Your task to perform on an android device: turn on sleep mode Image 0: 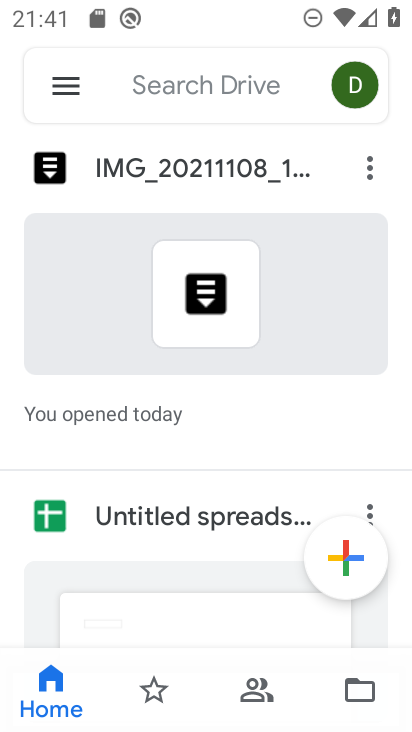
Step 0: press home button
Your task to perform on an android device: turn on sleep mode Image 1: 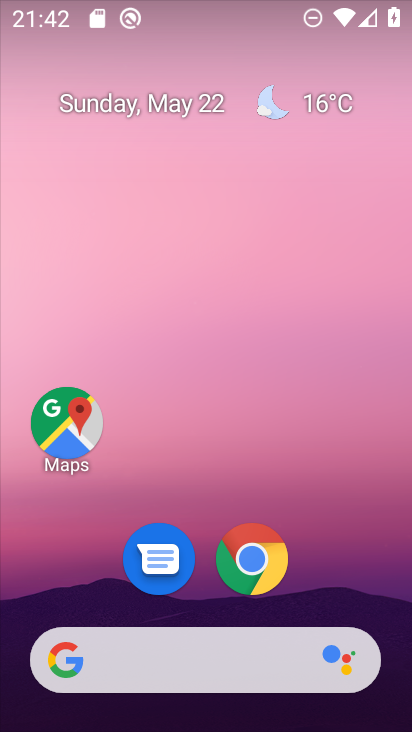
Step 1: drag from (307, 664) to (238, 216)
Your task to perform on an android device: turn on sleep mode Image 2: 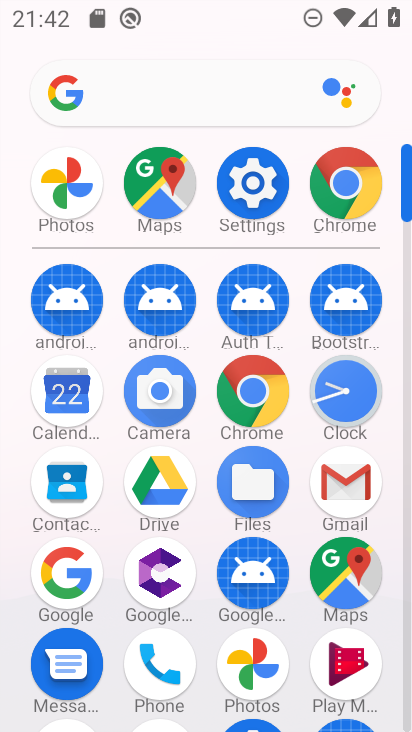
Step 2: click (261, 210)
Your task to perform on an android device: turn on sleep mode Image 3: 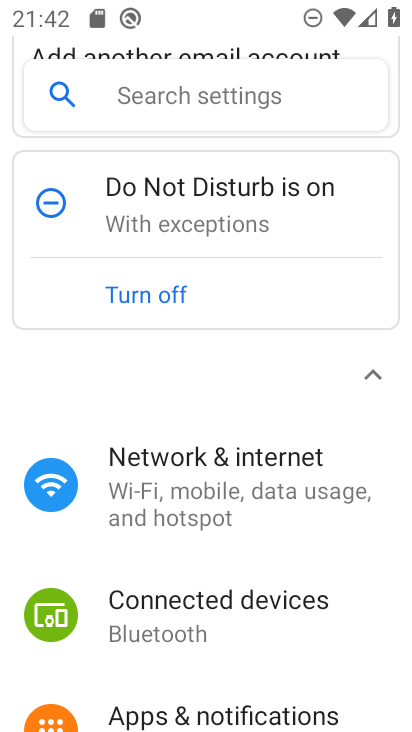
Step 3: click (173, 113)
Your task to perform on an android device: turn on sleep mode Image 4: 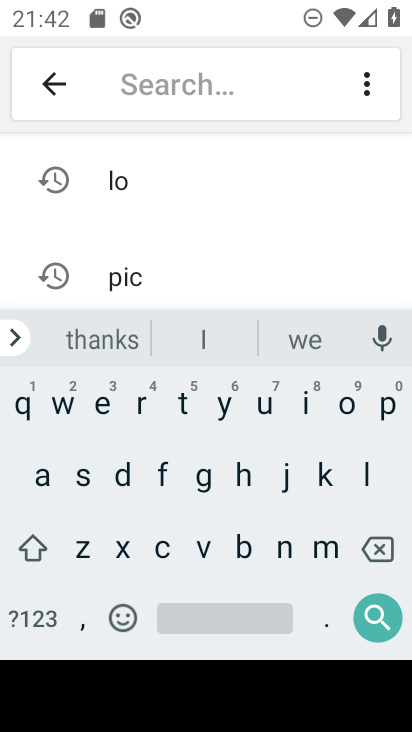
Step 4: click (79, 474)
Your task to perform on an android device: turn on sleep mode Image 5: 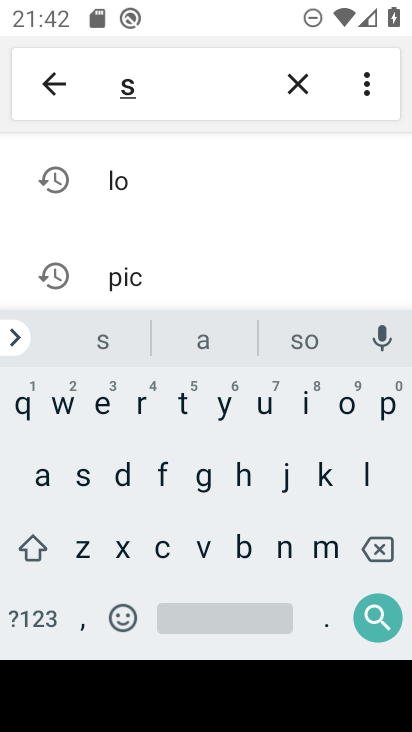
Step 5: click (370, 467)
Your task to perform on an android device: turn on sleep mode Image 6: 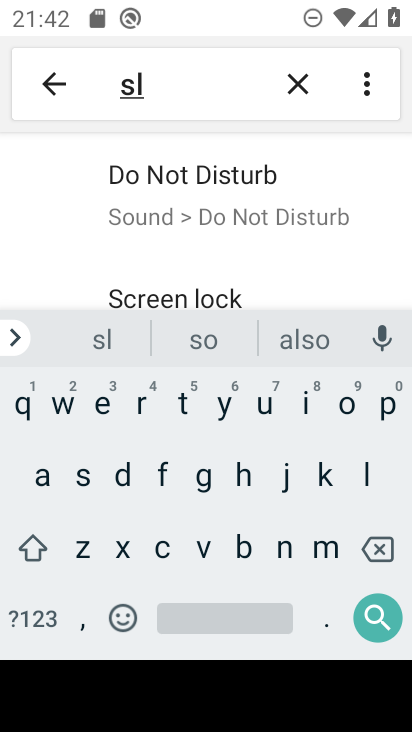
Step 6: click (143, 166)
Your task to perform on an android device: turn on sleep mode Image 7: 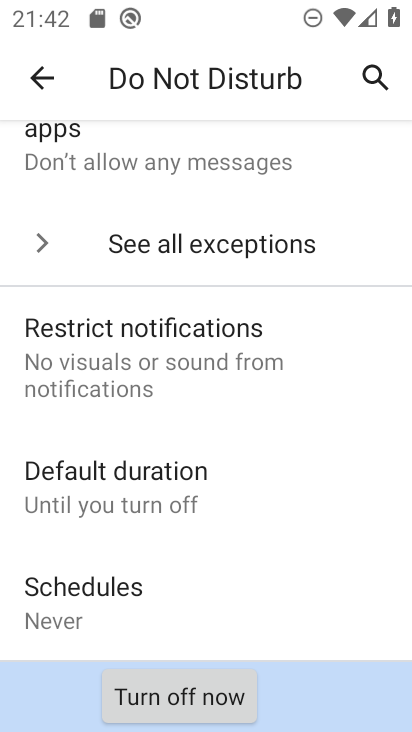
Step 7: click (196, 696)
Your task to perform on an android device: turn on sleep mode Image 8: 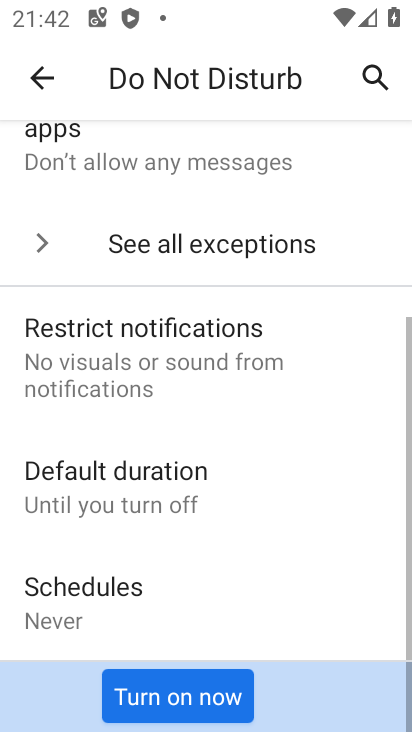
Step 8: task complete